Your task to perform on an android device: See recent photos Image 0: 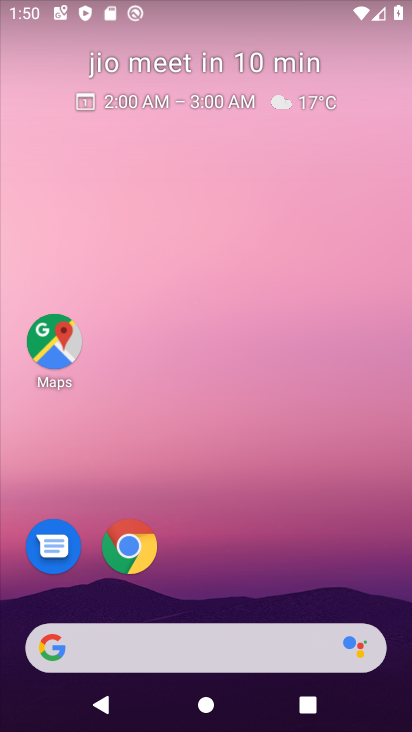
Step 0: drag from (303, 576) to (314, 198)
Your task to perform on an android device: See recent photos Image 1: 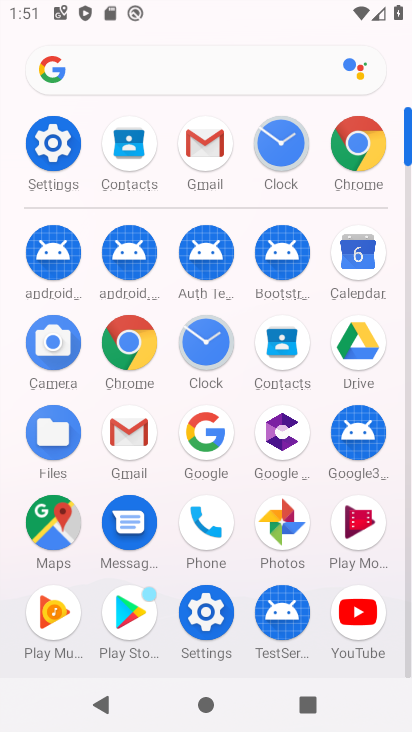
Step 1: click (275, 541)
Your task to perform on an android device: See recent photos Image 2: 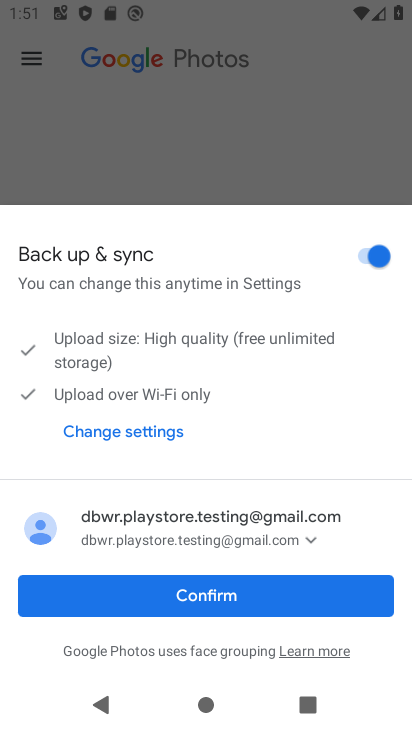
Step 2: click (254, 604)
Your task to perform on an android device: See recent photos Image 3: 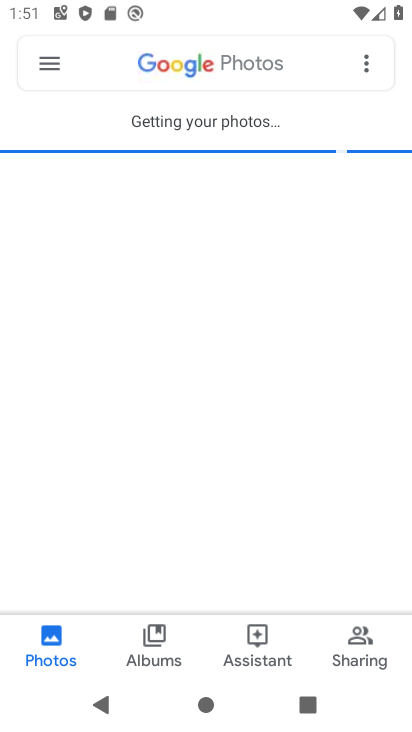
Step 3: task complete